Your task to perform on an android device: What is the recent news? Image 0: 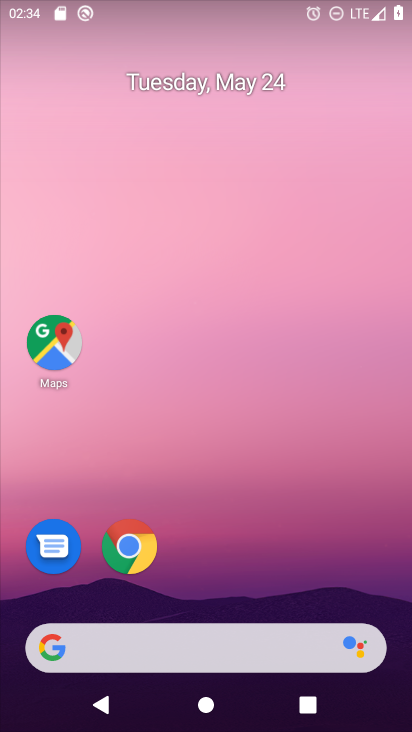
Step 0: drag from (327, 629) to (309, 40)
Your task to perform on an android device: What is the recent news? Image 1: 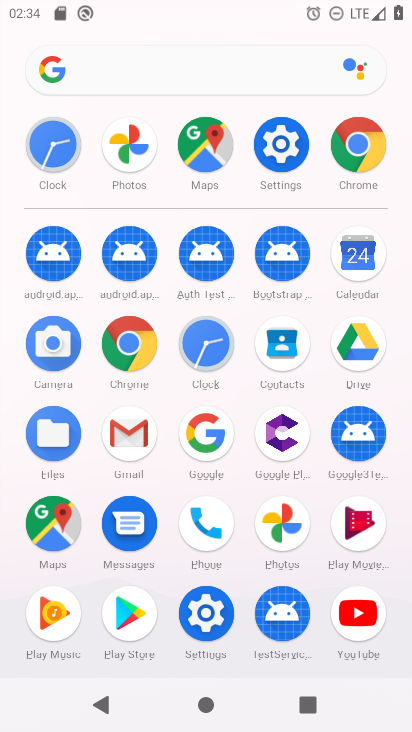
Step 1: click (127, 339)
Your task to perform on an android device: What is the recent news? Image 2: 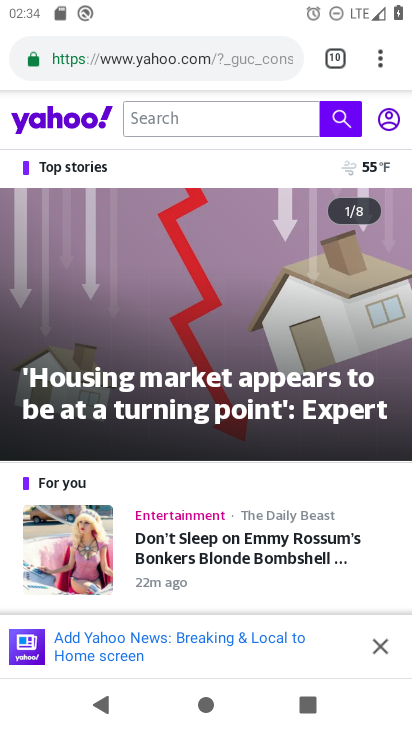
Step 2: click (257, 64)
Your task to perform on an android device: What is the recent news? Image 3: 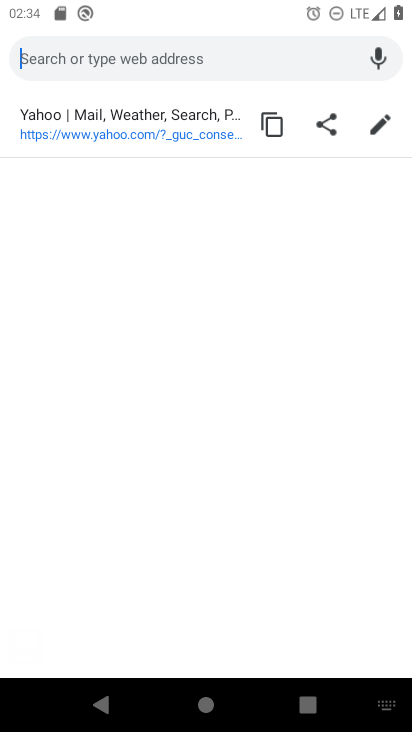
Step 3: type "recent news"
Your task to perform on an android device: What is the recent news? Image 4: 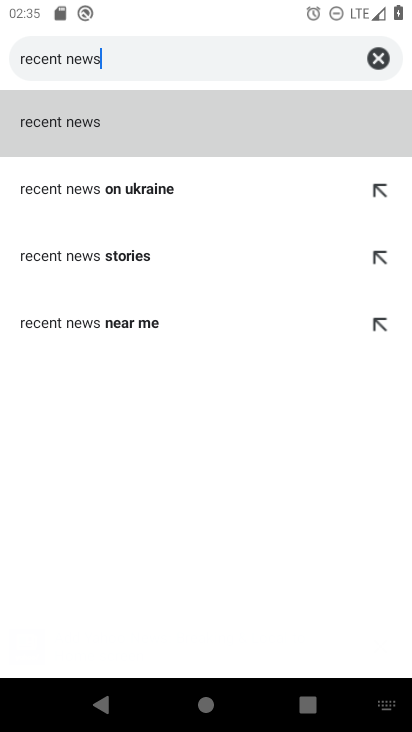
Step 4: click (105, 135)
Your task to perform on an android device: What is the recent news? Image 5: 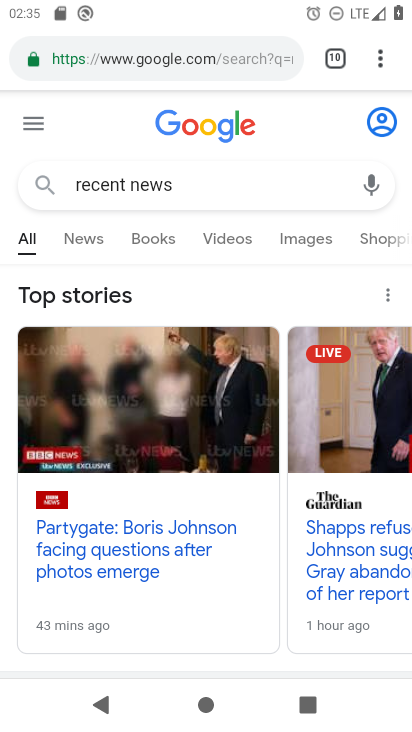
Step 5: task complete